Your task to perform on an android device: Go to location settings Image 0: 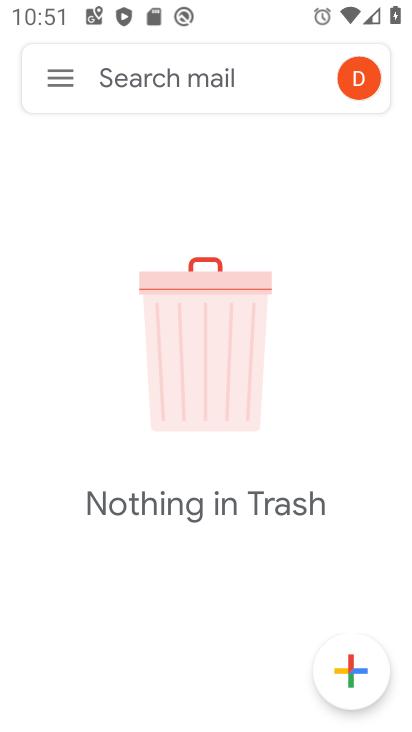
Step 0: press home button
Your task to perform on an android device: Go to location settings Image 1: 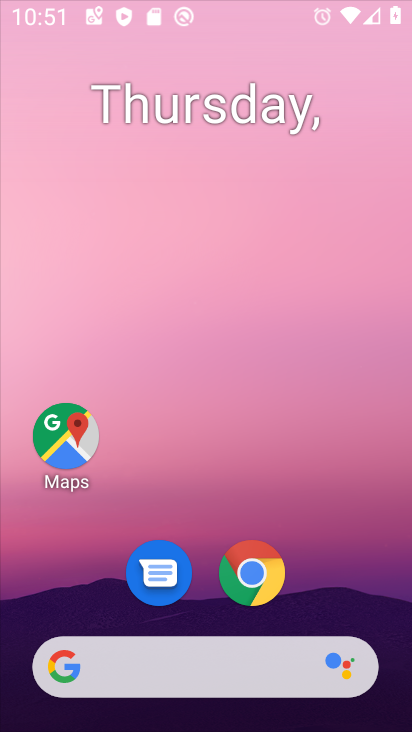
Step 1: drag from (267, 543) to (214, 125)
Your task to perform on an android device: Go to location settings Image 2: 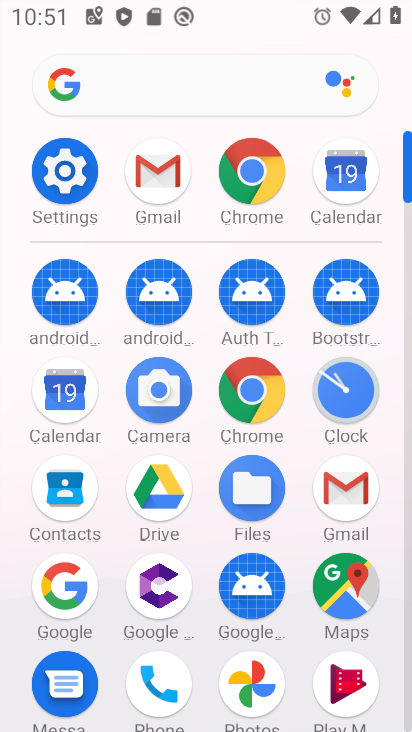
Step 2: click (70, 185)
Your task to perform on an android device: Go to location settings Image 3: 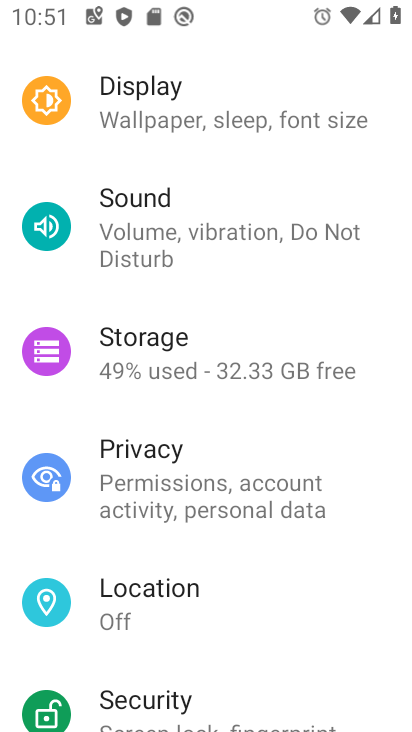
Step 3: click (194, 596)
Your task to perform on an android device: Go to location settings Image 4: 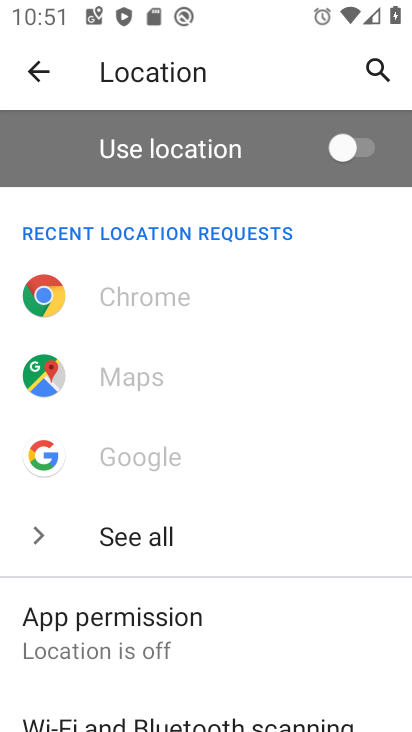
Step 4: task complete